Your task to perform on an android device: toggle show notifications on the lock screen Image 0: 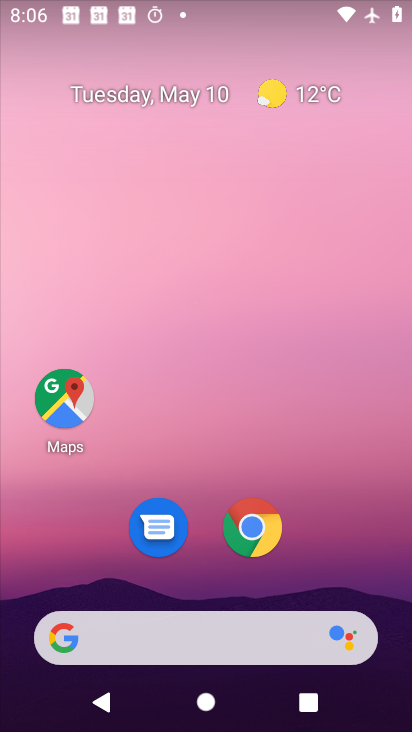
Step 0: drag from (326, 562) to (346, 179)
Your task to perform on an android device: toggle show notifications on the lock screen Image 1: 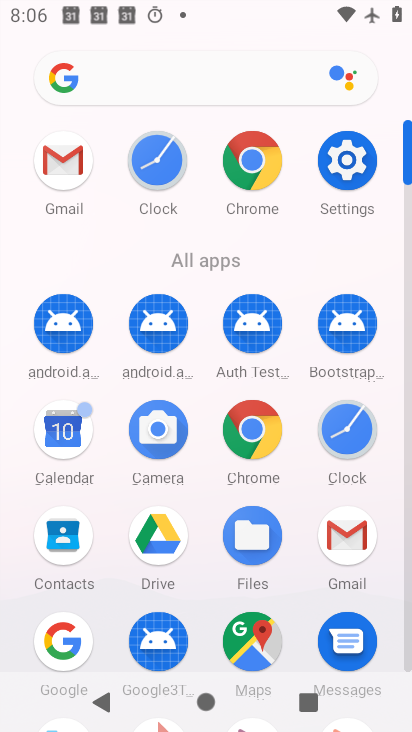
Step 1: click (351, 164)
Your task to perform on an android device: toggle show notifications on the lock screen Image 2: 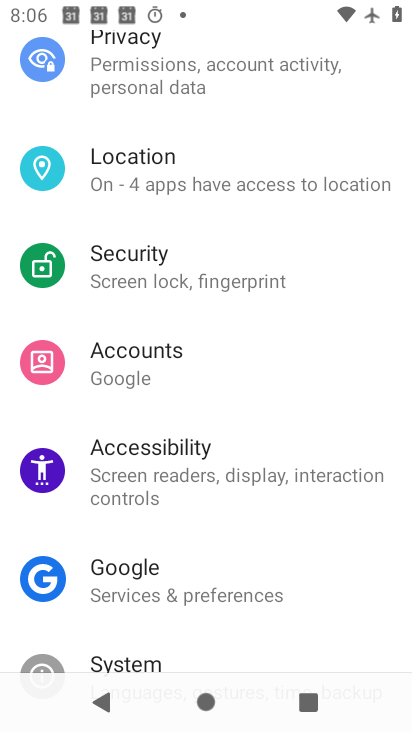
Step 2: drag from (351, 164) to (271, 463)
Your task to perform on an android device: toggle show notifications on the lock screen Image 3: 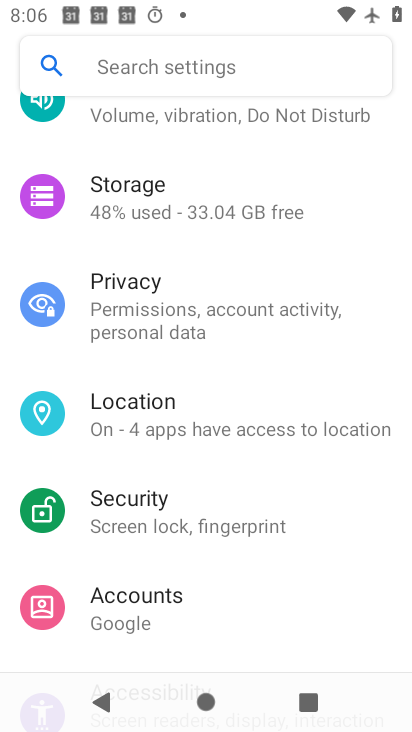
Step 3: drag from (263, 256) to (164, 635)
Your task to perform on an android device: toggle show notifications on the lock screen Image 4: 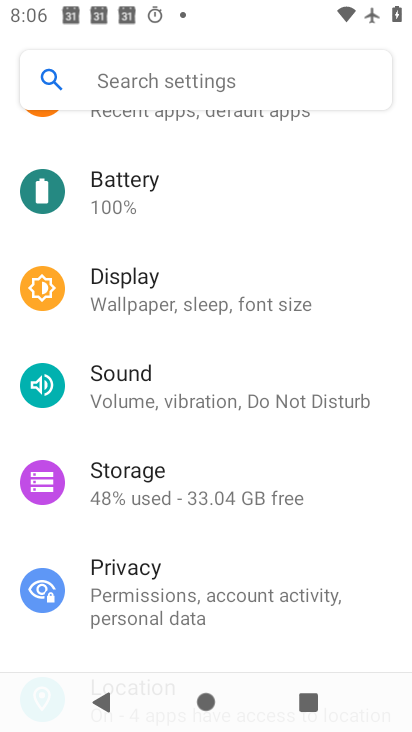
Step 4: drag from (248, 326) to (226, 632)
Your task to perform on an android device: toggle show notifications on the lock screen Image 5: 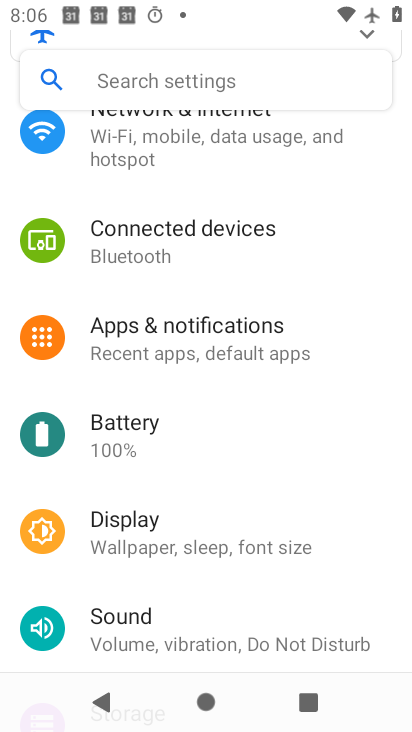
Step 5: click (262, 319)
Your task to perform on an android device: toggle show notifications on the lock screen Image 6: 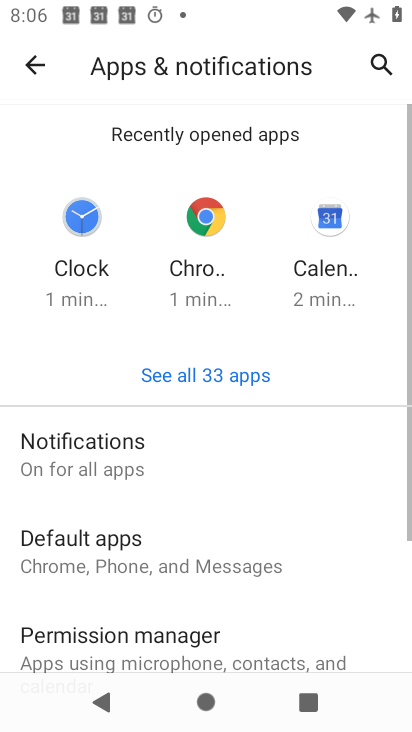
Step 6: drag from (223, 589) to (244, 313)
Your task to perform on an android device: toggle show notifications on the lock screen Image 7: 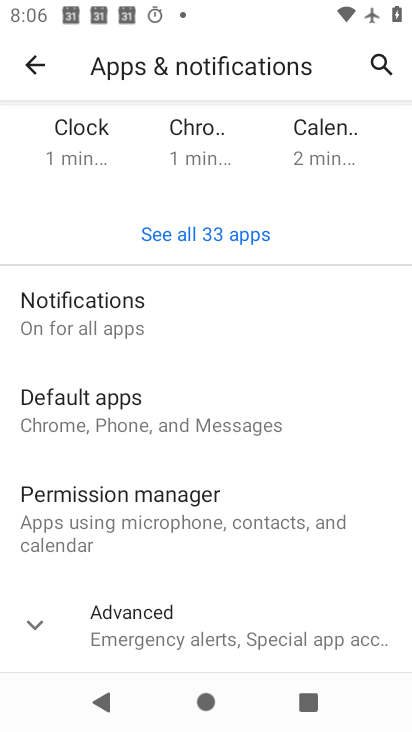
Step 7: click (123, 321)
Your task to perform on an android device: toggle show notifications on the lock screen Image 8: 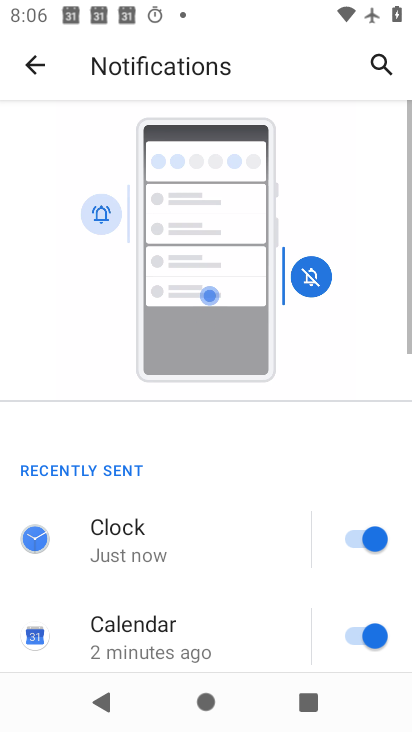
Step 8: drag from (181, 622) to (222, 292)
Your task to perform on an android device: toggle show notifications on the lock screen Image 9: 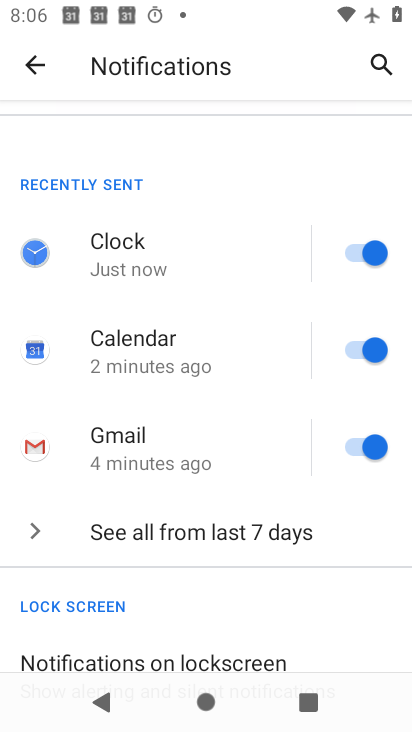
Step 9: drag from (205, 592) to (235, 263)
Your task to perform on an android device: toggle show notifications on the lock screen Image 10: 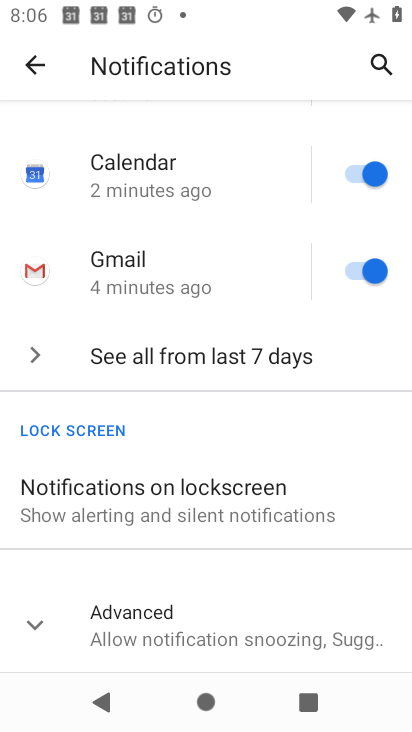
Step 10: click (156, 502)
Your task to perform on an android device: toggle show notifications on the lock screen Image 11: 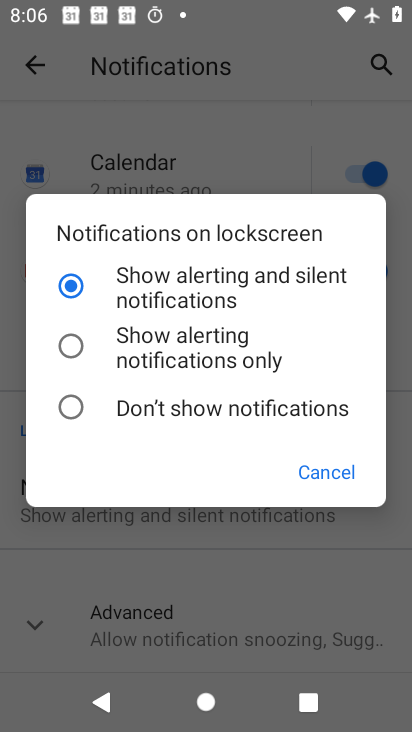
Step 11: click (182, 339)
Your task to perform on an android device: toggle show notifications on the lock screen Image 12: 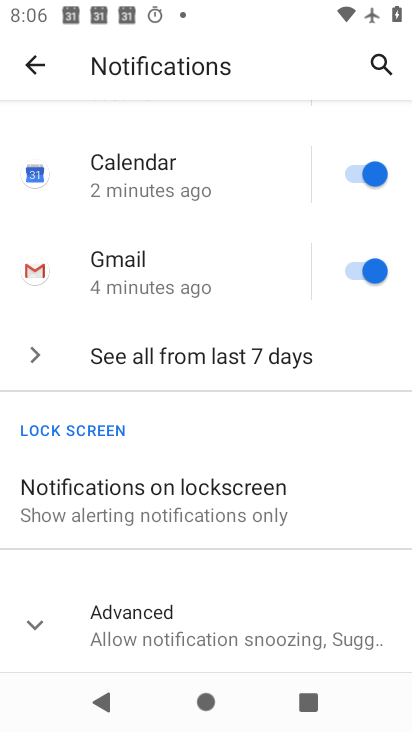
Step 12: task complete